Your task to perform on an android device: Open calendar and show me the second week of next month Image 0: 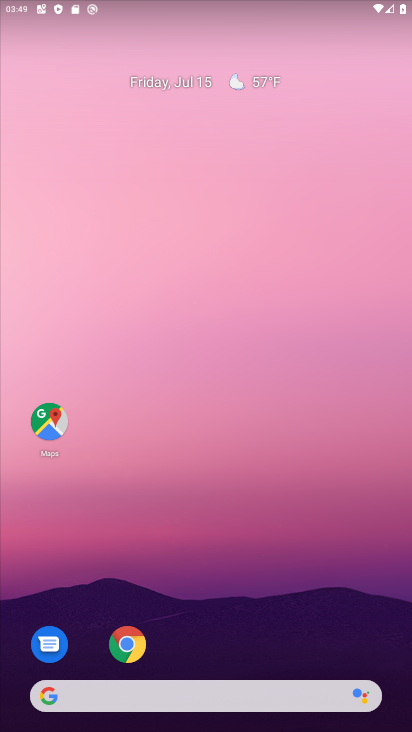
Step 0: drag from (361, 636) to (276, 131)
Your task to perform on an android device: Open calendar and show me the second week of next month Image 1: 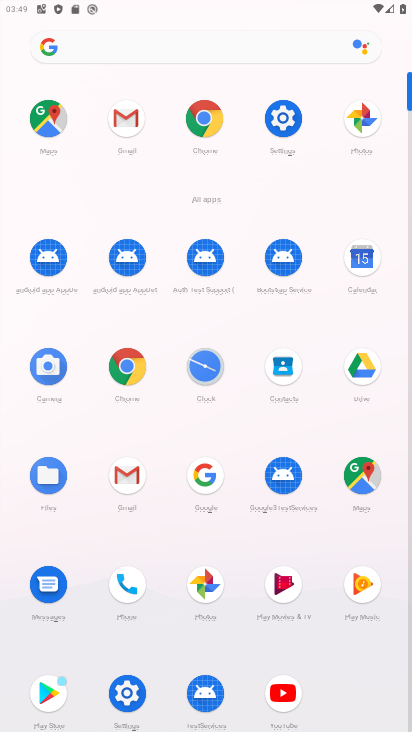
Step 1: click (366, 265)
Your task to perform on an android device: Open calendar and show me the second week of next month Image 2: 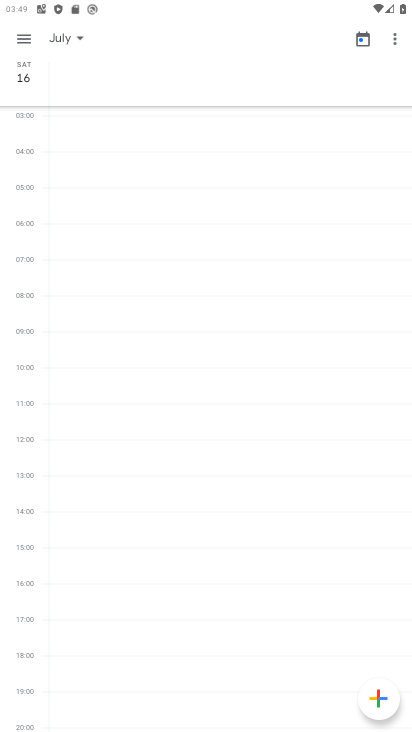
Step 2: click (22, 38)
Your task to perform on an android device: Open calendar and show me the second week of next month Image 3: 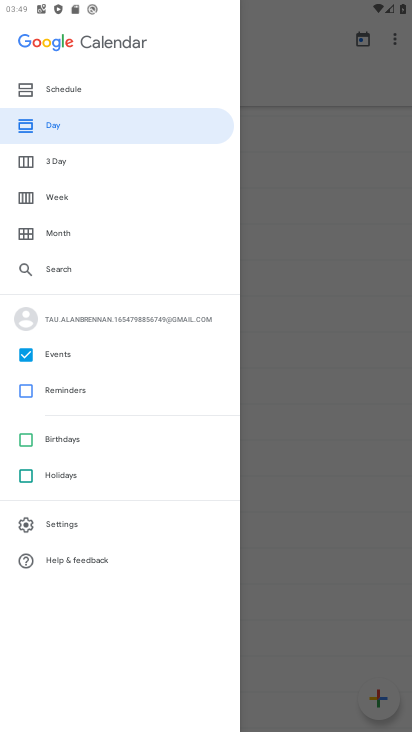
Step 3: click (70, 196)
Your task to perform on an android device: Open calendar and show me the second week of next month Image 4: 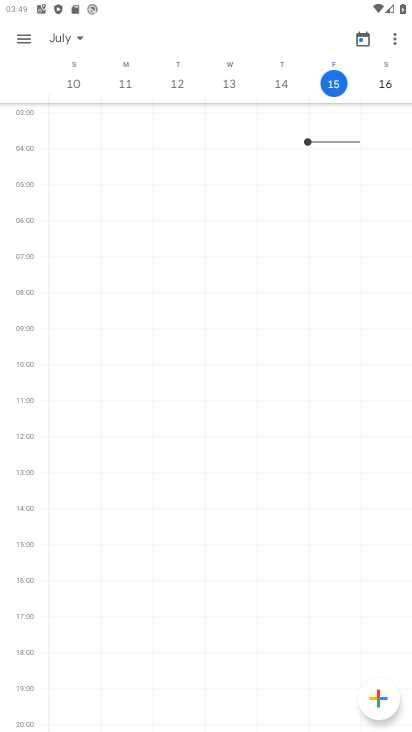
Step 4: click (67, 38)
Your task to perform on an android device: Open calendar and show me the second week of next month Image 5: 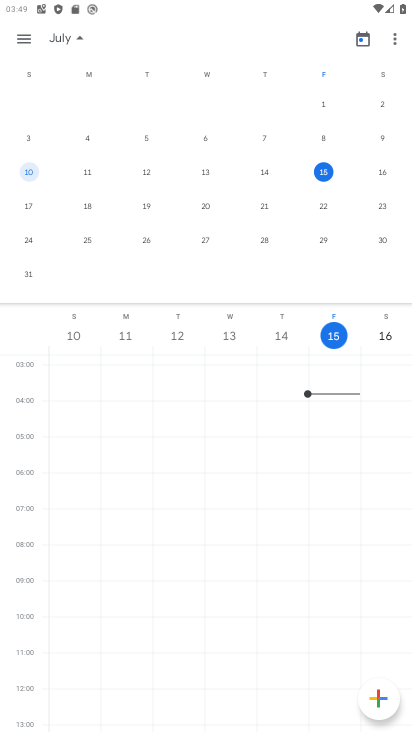
Step 5: drag from (389, 188) to (30, 185)
Your task to perform on an android device: Open calendar and show me the second week of next month Image 6: 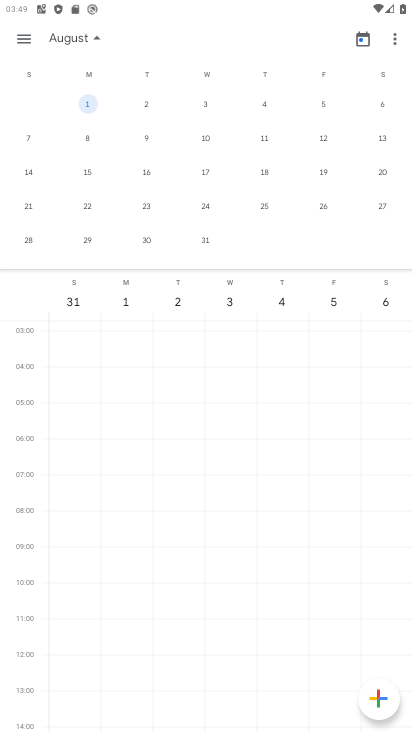
Step 6: click (204, 141)
Your task to perform on an android device: Open calendar and show me the second week of next month Image 7: 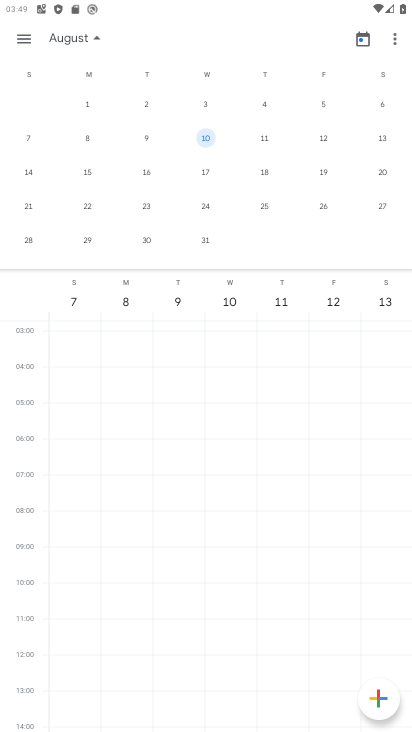
Step 7: task complete